Your task to perform on an android device: Search for "beats solo 3" on target, select the first entry, add it to the cart, then select checkout. Image 0: 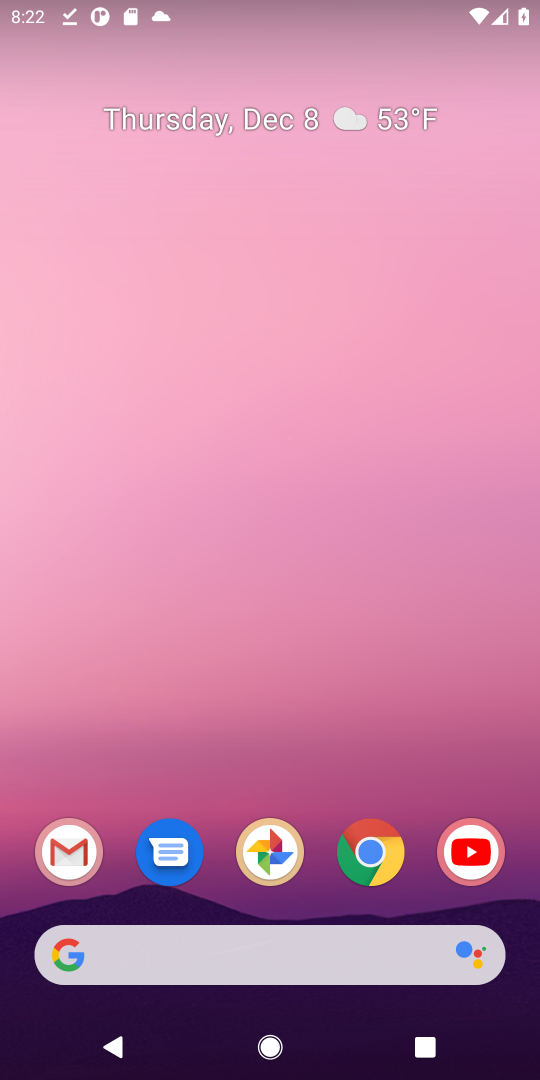
Step 0: click (295, 967)
Your task to perform on an android device: Search for "beats solo 3" on target, select the first entry, add it to the cart, then select checkout. Image 1: 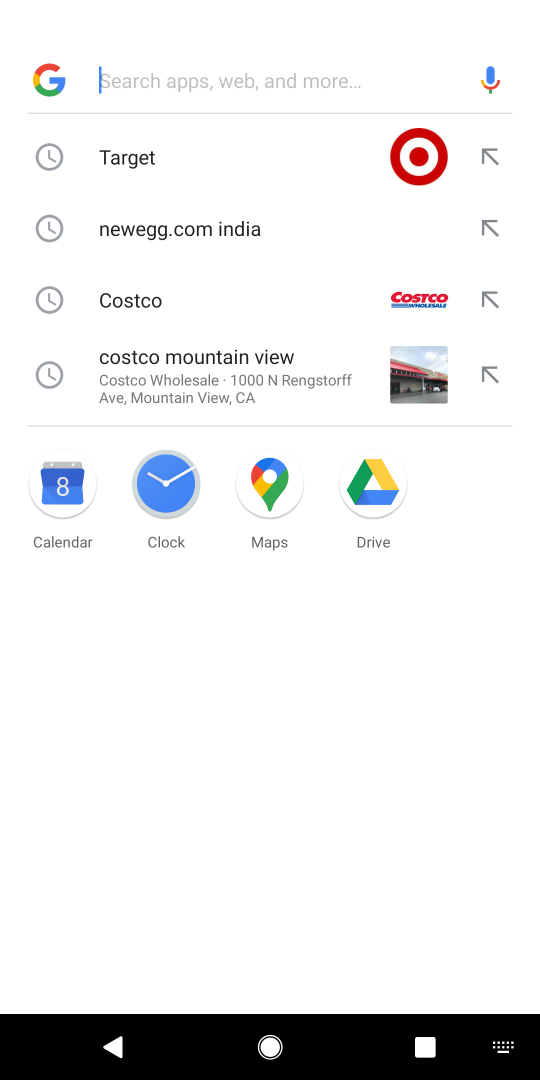
Step 1: click (170, 159)
Your task to perform on an android device: Search for "beats solo 3" on target, select the first entry, add it to the cart, then select checkout. Image 2: 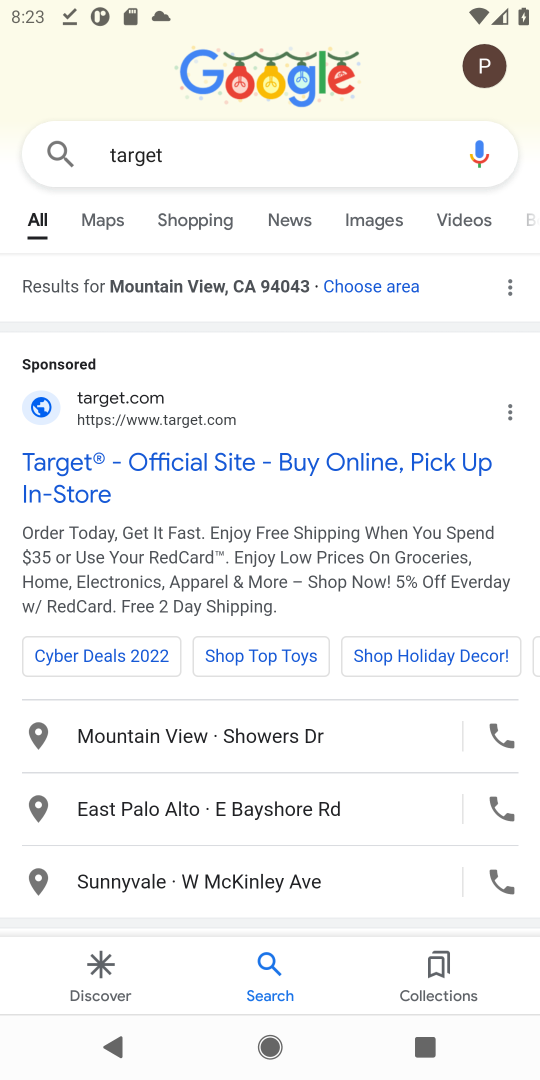
Step 2: click (101, 496)
Your task to perform on an android device: Search for "beats solo 3" on target, select the first entry, add it to the cart, then select checkout. Image 3: 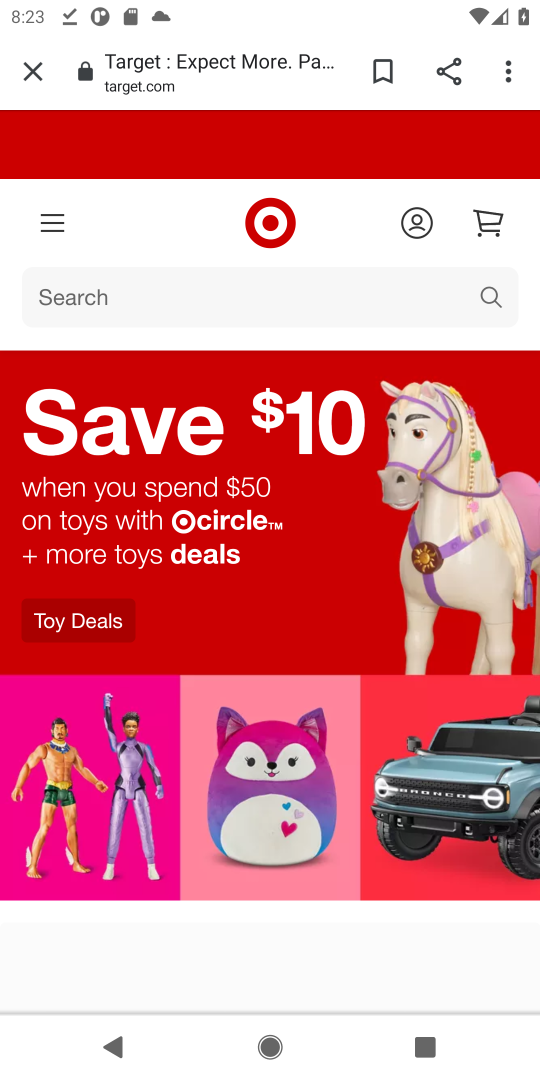
Step 3: click (161, 297)
Your task to perform on an android device: Search for "beats solo 3" on target, select the first entry, add it to the cart, then select checkout. Image 4: 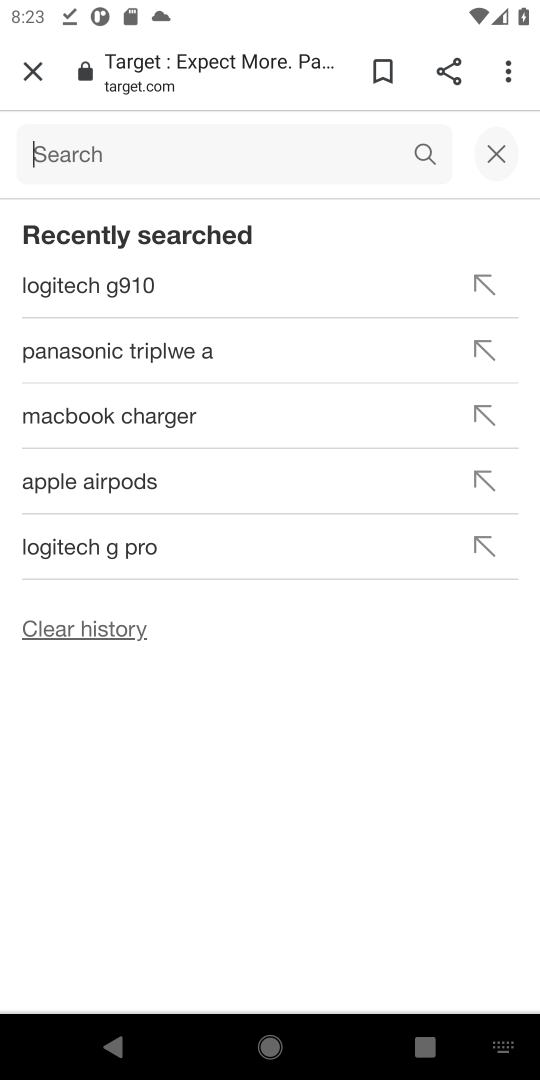
Step 4: type "beats solo 3"
Your task to perform on an android device: Search for "beats solo 3" on target, select the first entry, add it to the cart, then select checkout. Image 5: 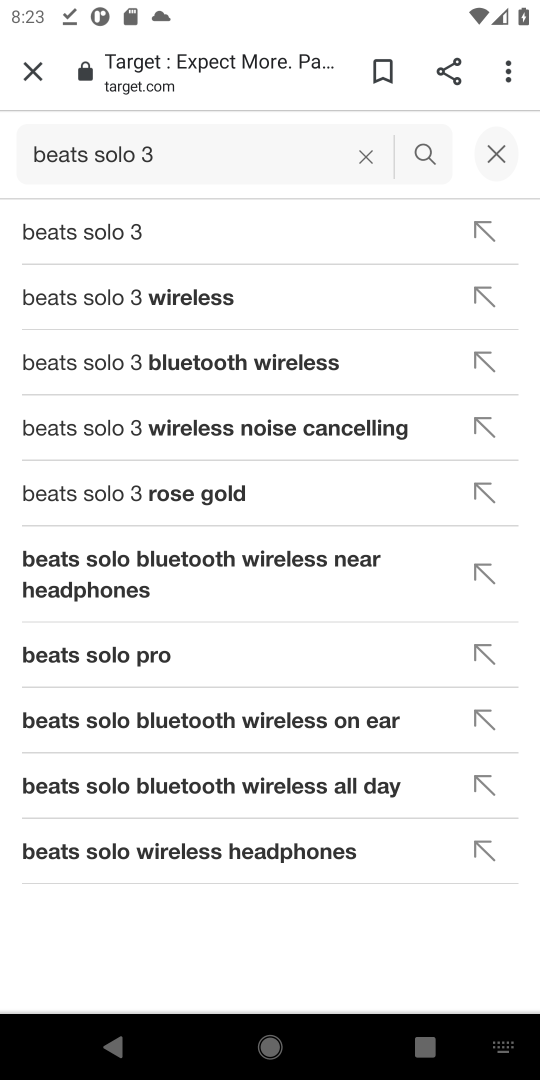
Step 5: click (413, 158)
Your task to perform on an android device: Search for "beats solo 3" on target, select the first entry, add it to the cart, then select checkout. Image 6: 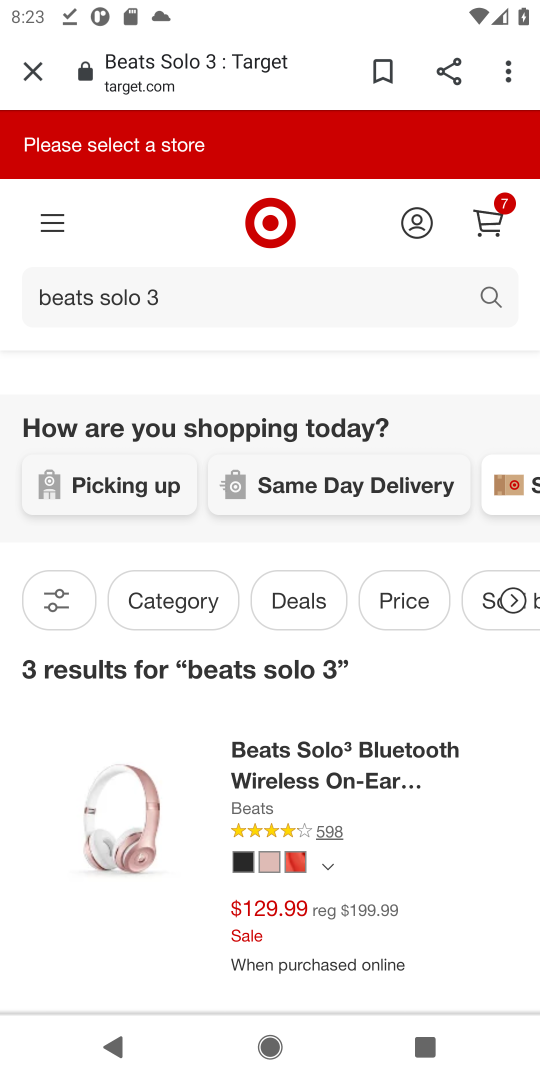
Step 6: drag from (446, 878) to (377, 367)
Your task to perform on an android device: Search for "beats solo 3" on target, select the first entry, add it to the cart, then select checkout. Image 7: 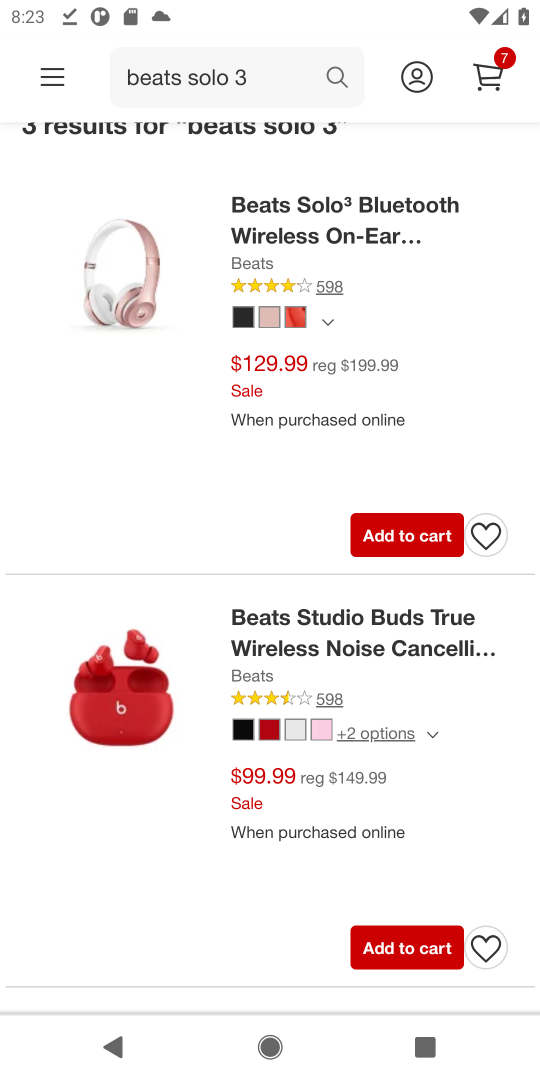
Step 7: click (383, 518)
Your task to perform on an android device: Search for "beats solo 3" on target, select the first entry, add it to the cart, then select checkout. Image 8: 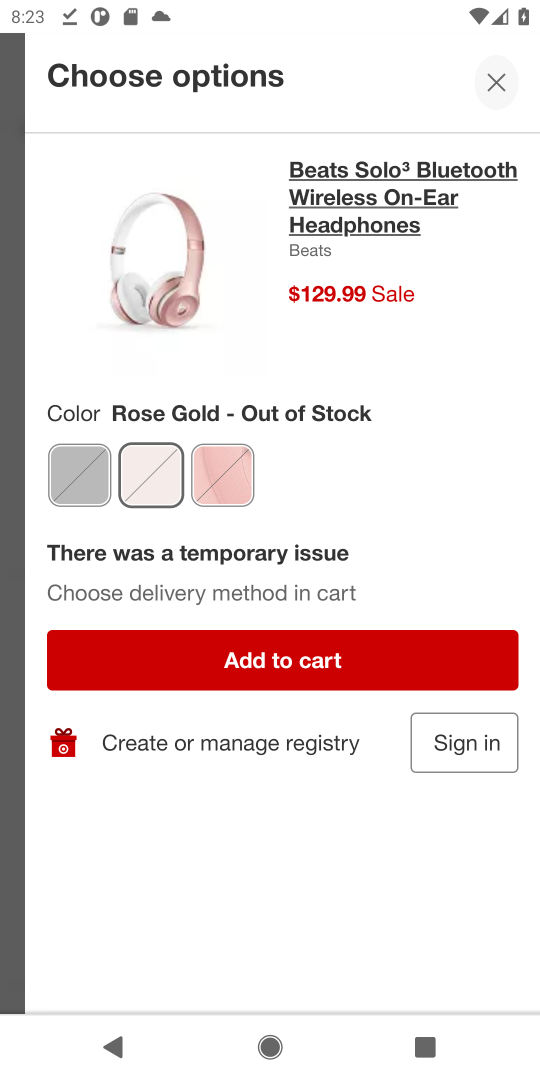
Step 8: task complete